Your task to perform on an android device: change timer sound Image 0: 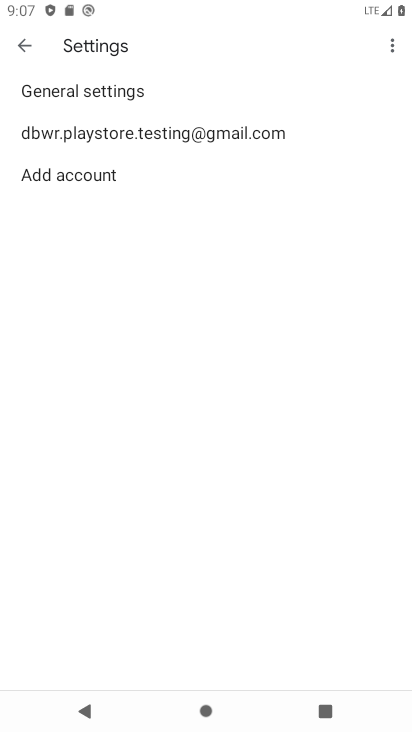
Step 0: press home button
Your task to perform on an android device: change timer sound Image 1: 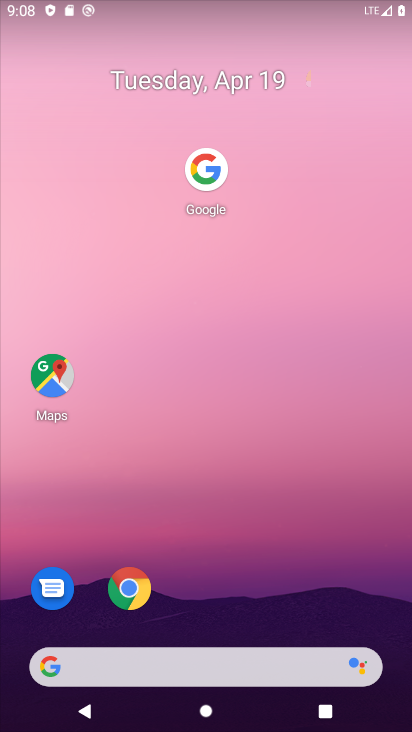
Step 1: drag from (244, 563) to (280, 4)
Your task to perform on an android device: change timer sound Image 2: 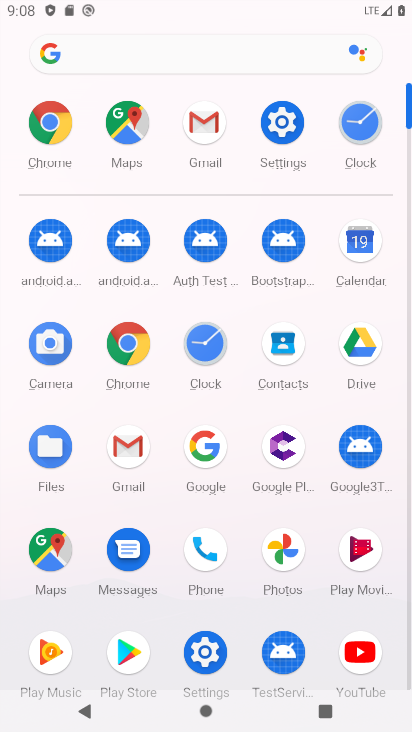
Step 2: click (358, 130)
Your task to perform on an android device: change timer sound Image 3: 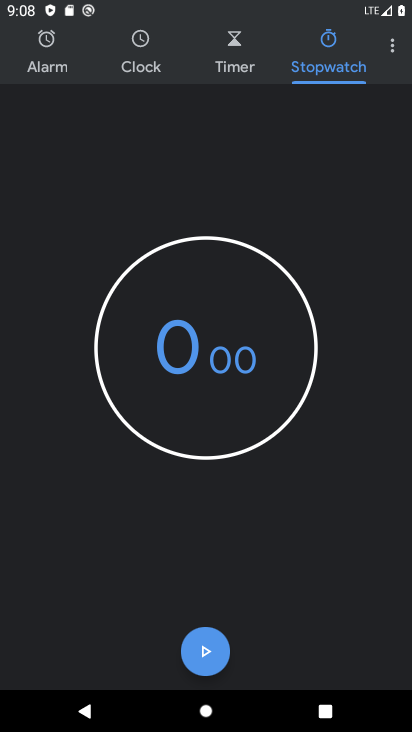
Step 3: click (223, 55)
Your task to perform on an android device: change timer sound Image 4: 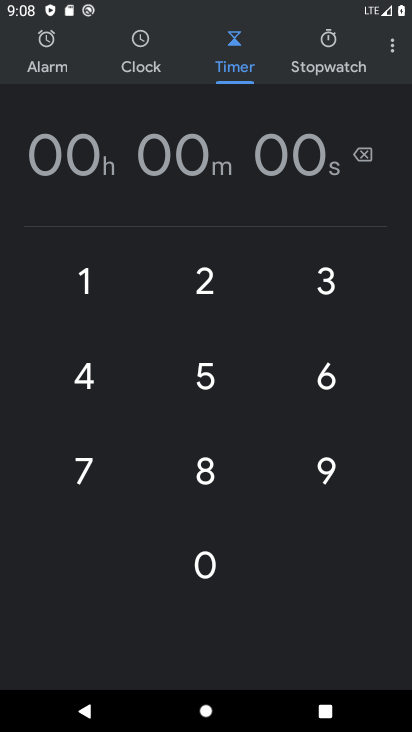
Step 4: click (94, 291)
Your task to perform on an android device: change timer sound Image 5: 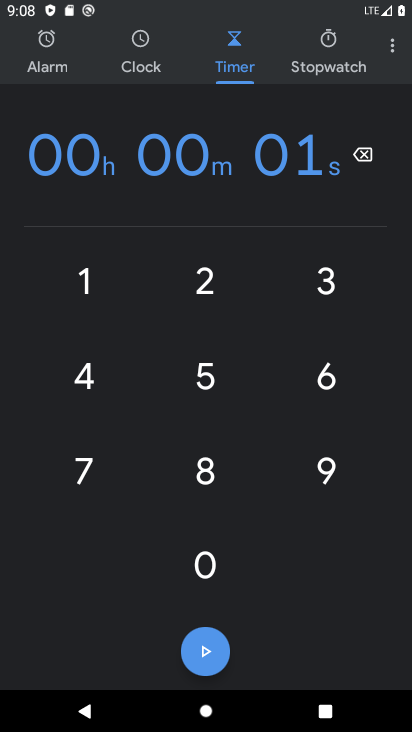
Step 5: click (87, 281)
Your task to perform on an android device: change timer sound Image 6: 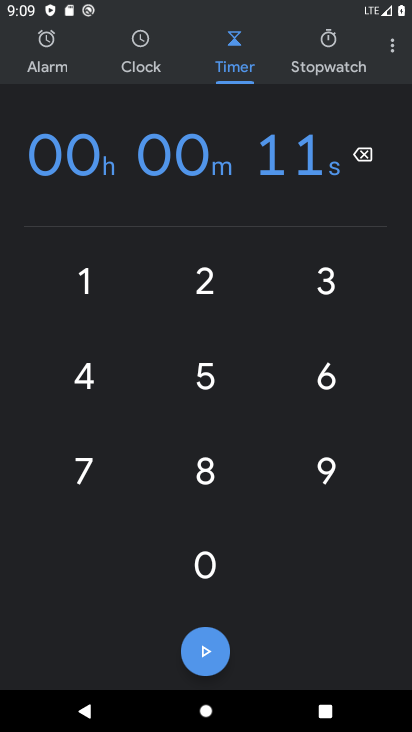
Step 6: click (88, 291)
Your task to perform on an android device: change timer sound Image 7: 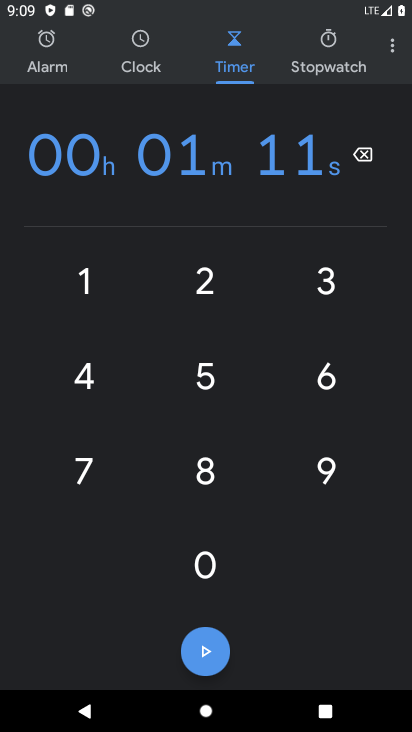
Step 7: click (87, 285)
Your task to perform on an android device: change timer sound Image 8: 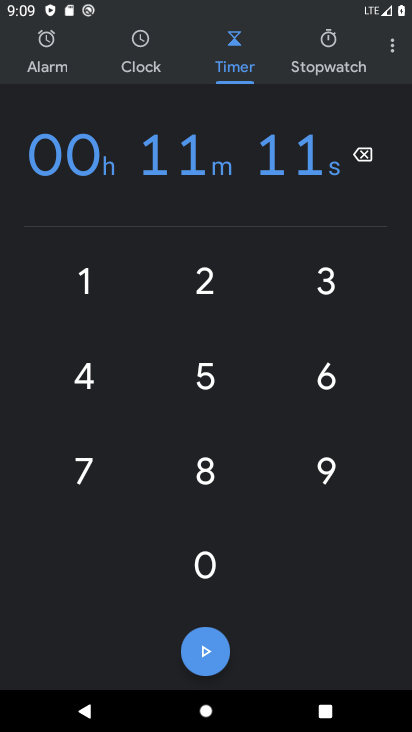
Step 8: click (87, 285)
Your task to perform on an android device: change timer sound Image 9: 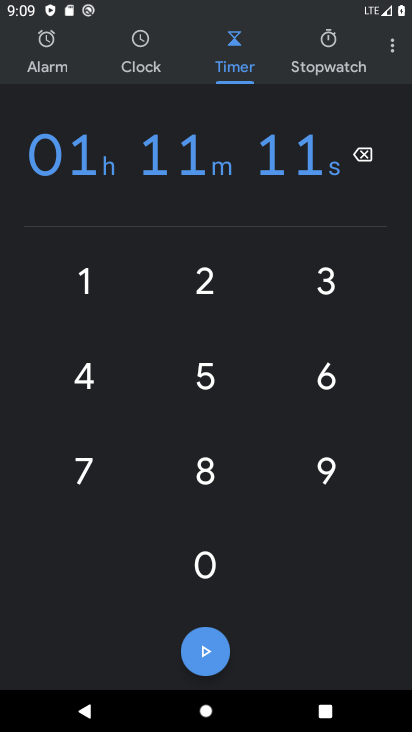
Step 9: task complete